Your task to perform on an android device: turn off sleep mode Image 0: 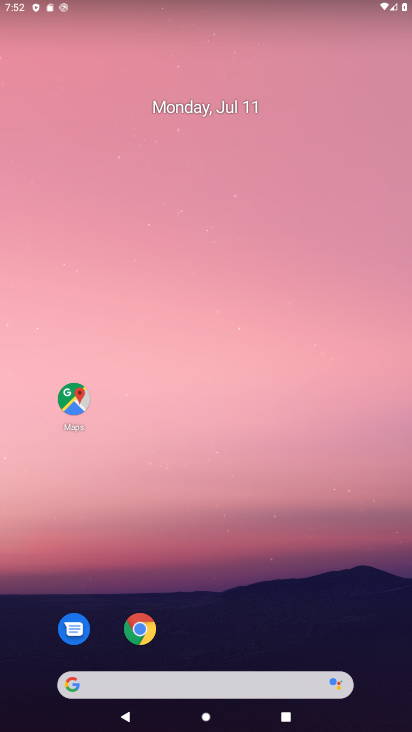
Step 0: drag from (252, 630) to (307, 157)
Your task to perform on an android device: turn off sleep mode Image 1: 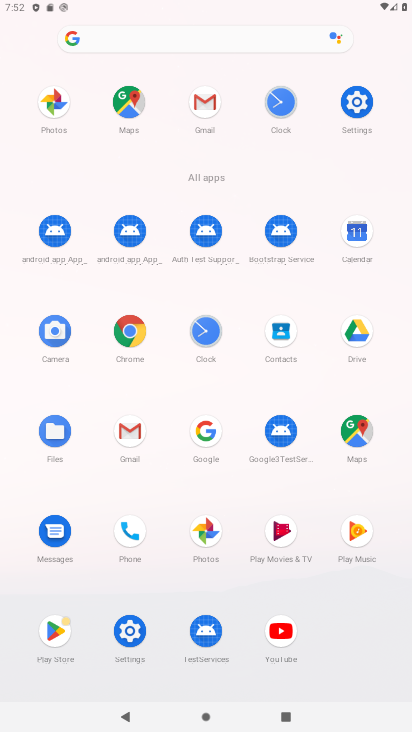
Step 1: click (358, 94)
Your task to perform on an android device: turn off sleep mode Image 2: 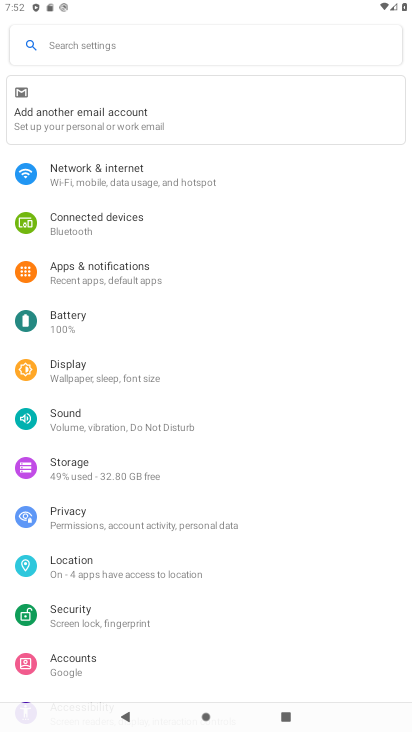
Step 2: click (96, 371)
Your task to perform on an android device: turn off sleep mode Image 3: 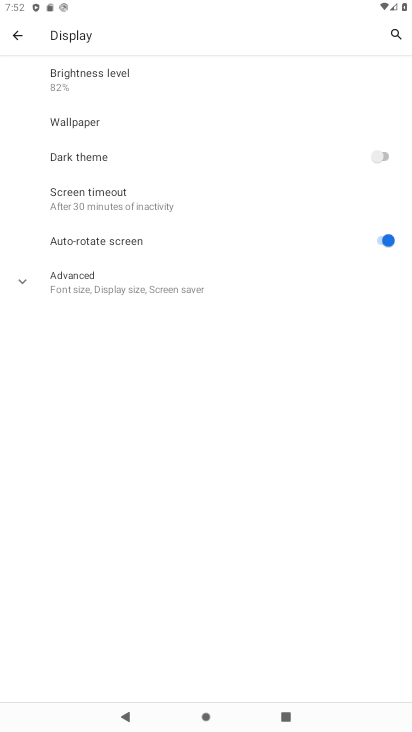
Step 3: click (101, 204)
Your task to perform on an android device: turn off sleep mode Image 4: 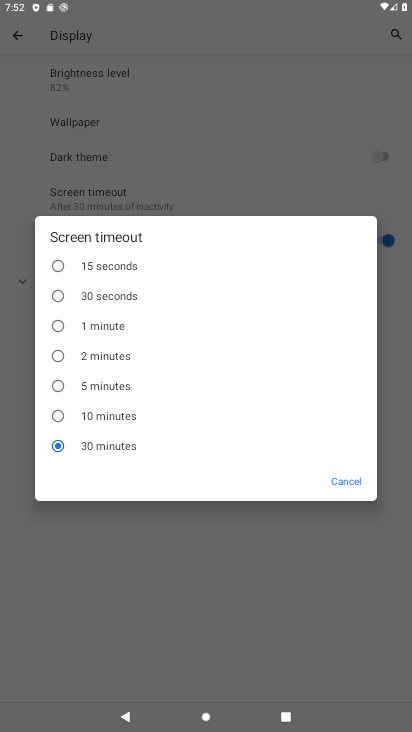
Step 4: task complete